Your task to perform on an android device: Go to Reddit.com Image 0: 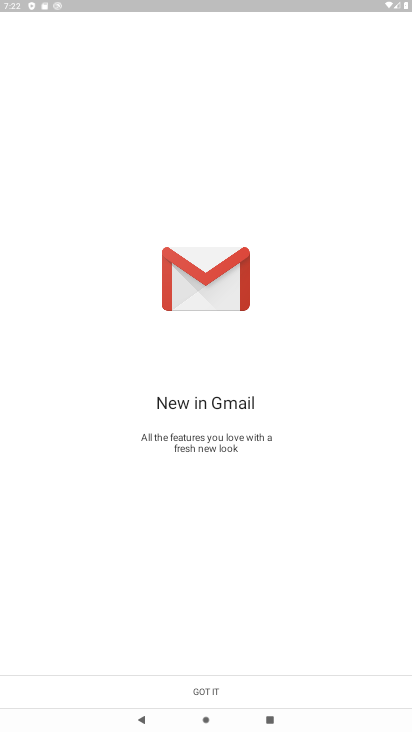
Step 0: press home button
Your task to perform on an android device: Go to Reddit.com Image 1: 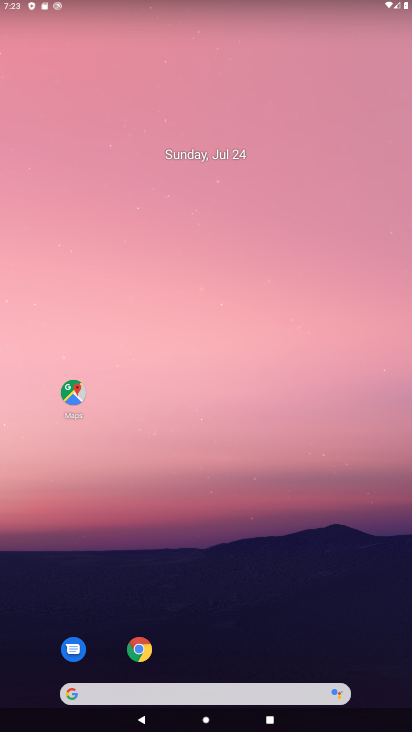
Step 1: click (142, 654)
Your task to perform on an android device: Go to Reddit.com Image 2: 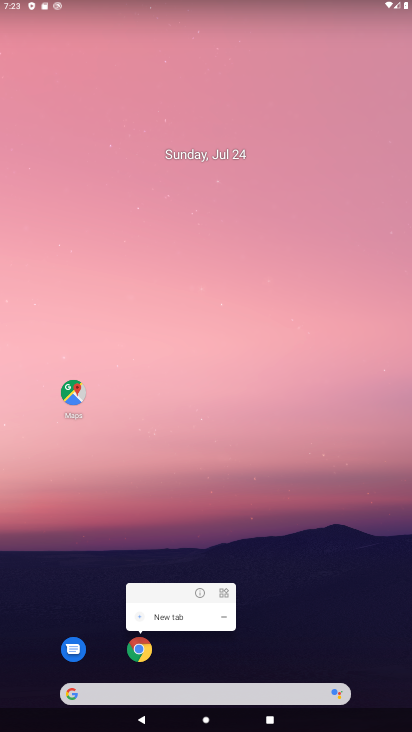
Step 2: click (139, 649)
Your task to perform on an android device: Go to Reddit.com Image 3: 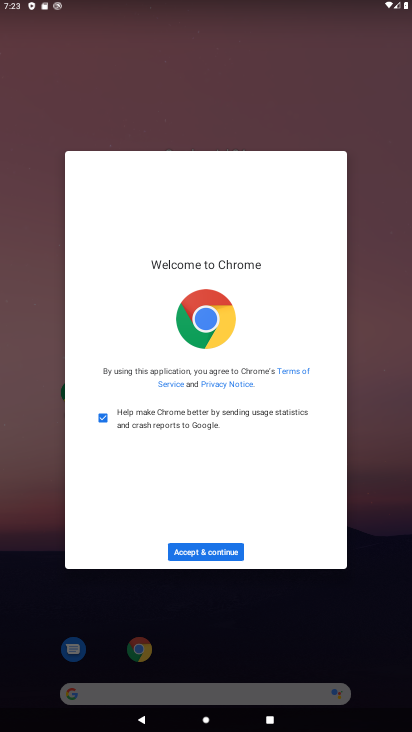
Step 3: click (210, 549)
Your task to perform on an android device: Go to Reddit.com Image 4: 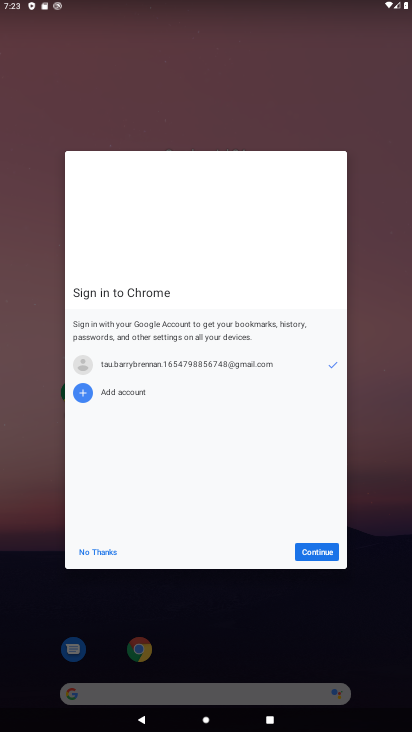
Step 4: click (311, 553)
Your task to perform on an android device: Go to Reddit.com Image 5: 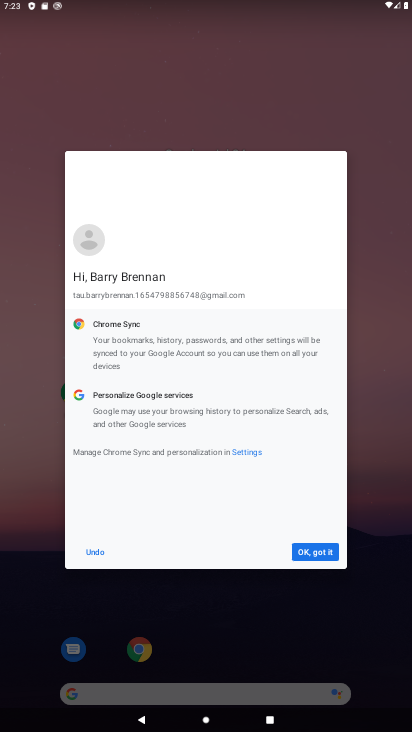
Step 5: click (311, 553)
Your task to perform on an android device: Go to Reddit.com Image 6: 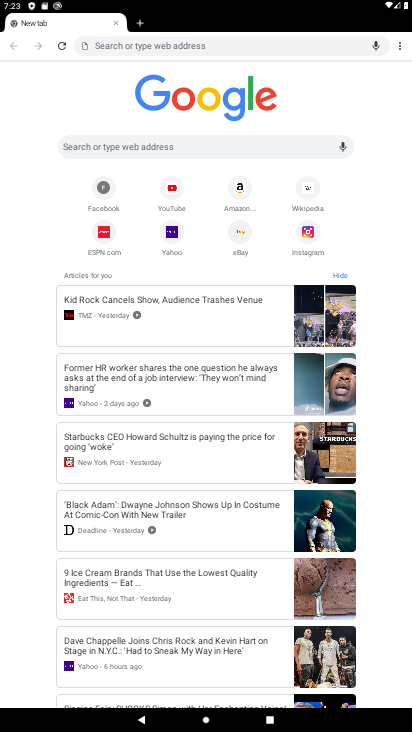
Step 6: click (133, 143)
Your task to perform on an android device: Go to Reddit.com Image 7: 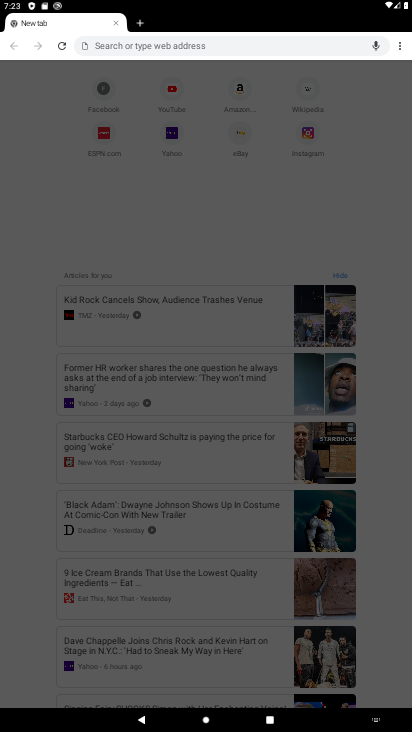
Step 7: type "reddit.com"
Your task to perform on an android device: Go to Reddit.com Image 8: 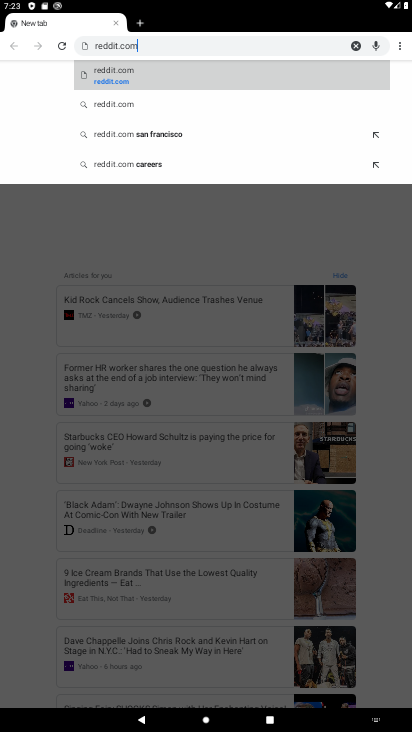
Step 8: click (141, 77)
Your task to perform on an android device: Go to Reddit.com Image 9: 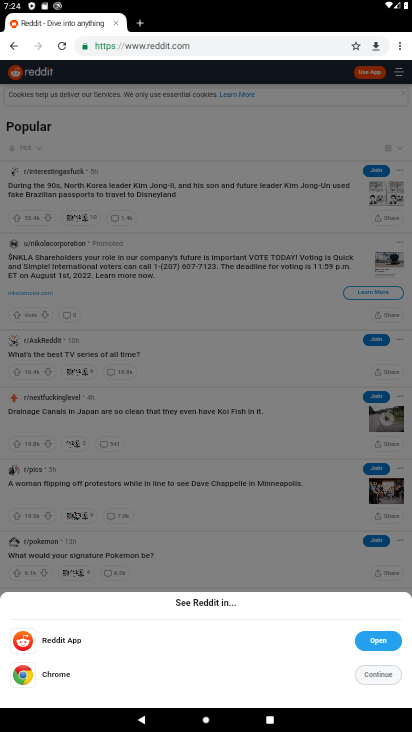
Step 9: task complete